Your task to perform on an android device: delete location history Image 0: 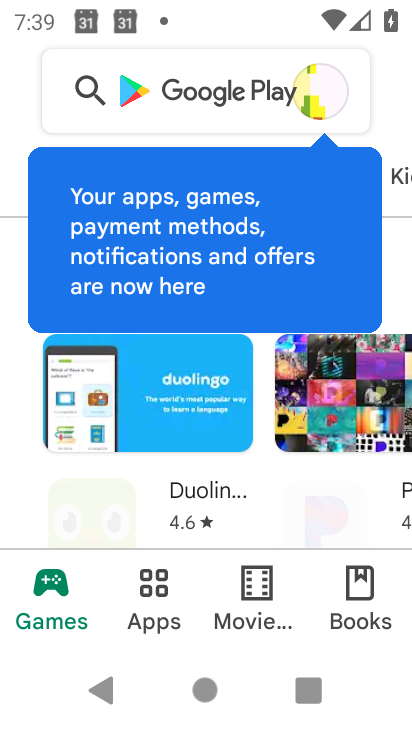
Step 0: press home button
Your task to perform on an android device: delete location history Image 1: 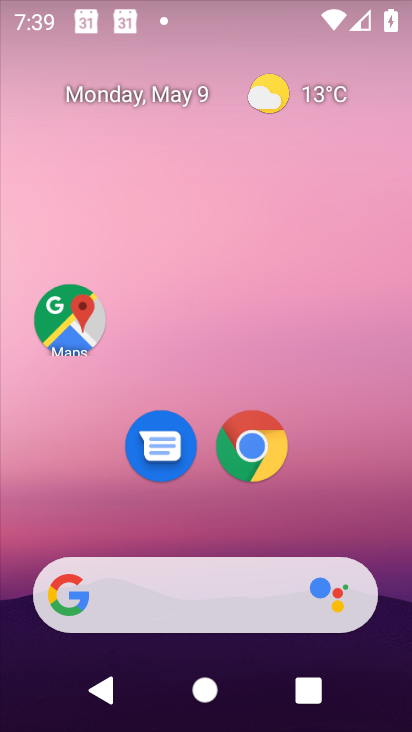
Step 1: drag from (317, 498) to (322, 48)
Your task to perform on an android device: delete location history Image 2: 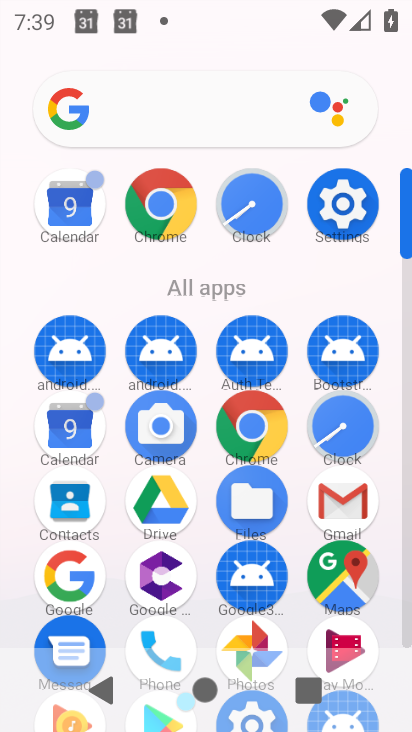
Step 2: click (337, 228)
Your task to perform on an android device: delete location history Image 3: 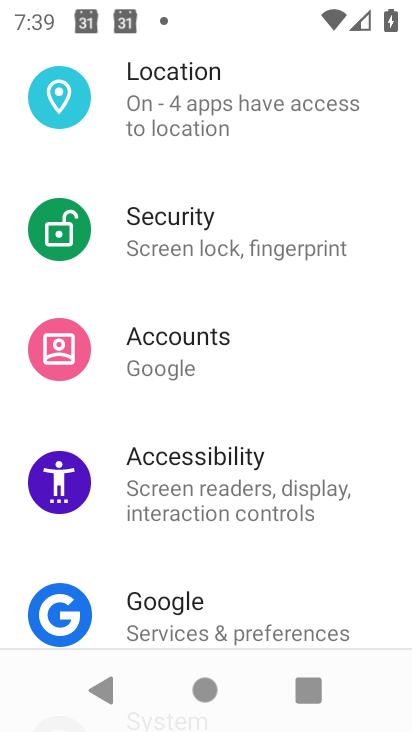
Step 3: click (280, 120)
Your task to perform on an android device: delete location history Image 4: 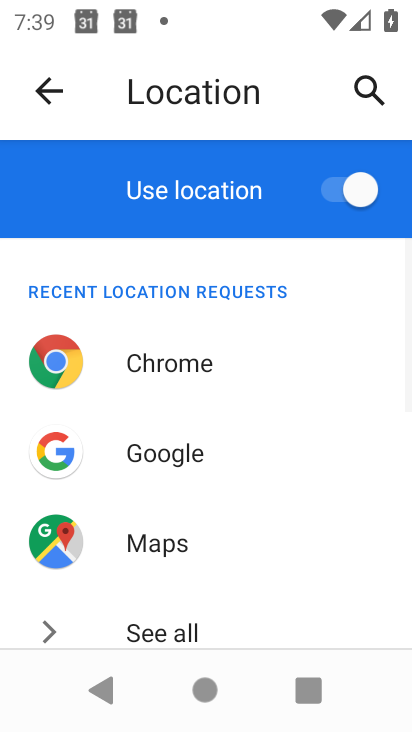
Step 4: drag from (176, 527) to (159, 263)
Your task to perform on an android device: delete location history Image 5: 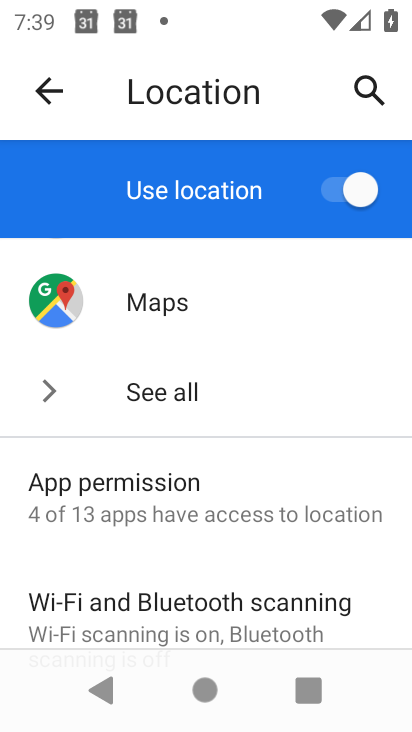
Step 5: drag from (303, 561) to (300, 204)
Your task to perform on an android device: delete location history Image 6: 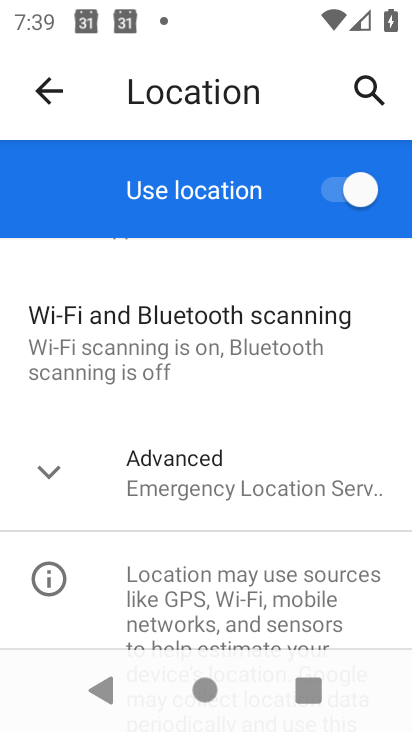
Step 6: click (39, 475)
Your task to perform on an android device: delete location history Image 7: 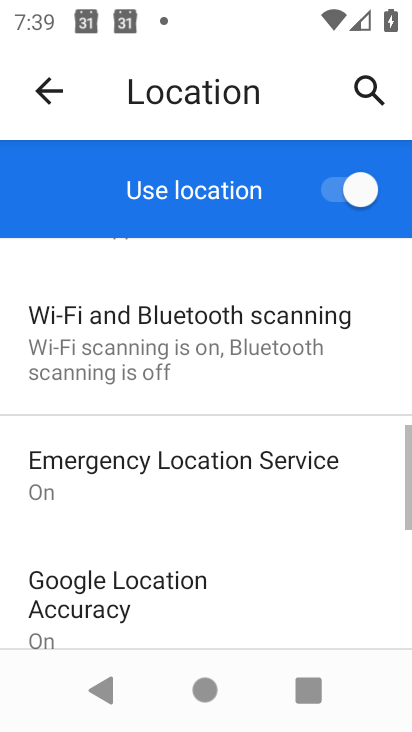
Step 7: drag from (135, 570) to (205, 207)
Your task to perform on an android device: delete location history Image 8: 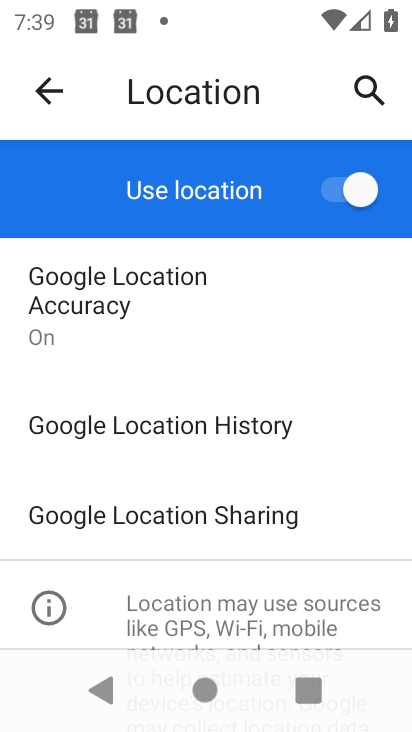
Step 8: click (221, 428)
Your task to perform on an android device: delete location history Image 9: 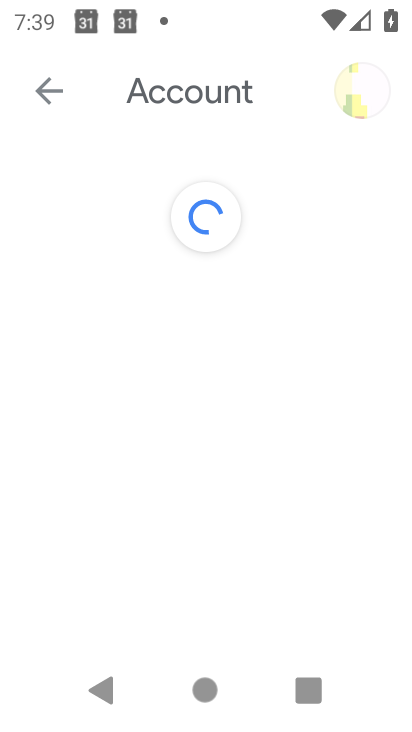
Step 9: drag from (221, 426) to (223, 194)
Your task to perform on an android device: delete location history Image 10: 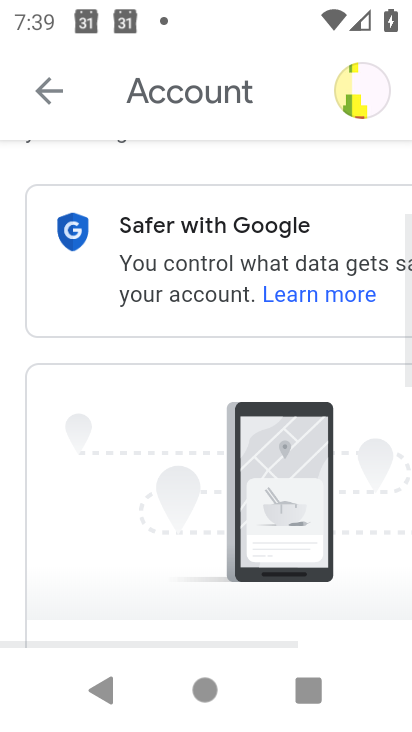
Step 10: drag from (251, 483) to (270, 124)
Your task to perform on an android device: delete location history Image 11: 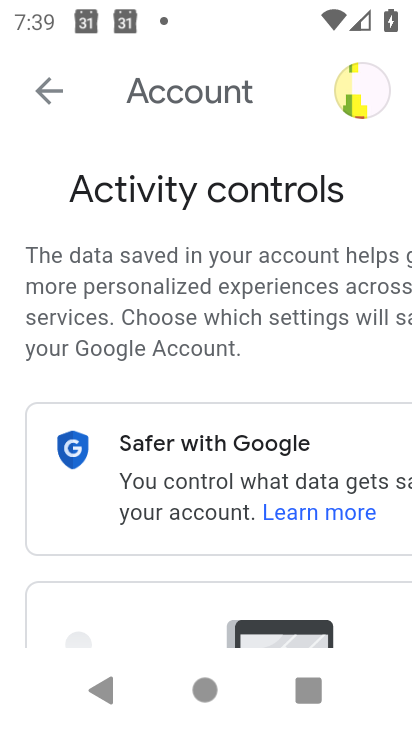
Step 11: drag from (312, 401) to (124, 346)
Your task to perform on an android device: delete location history Image 12: 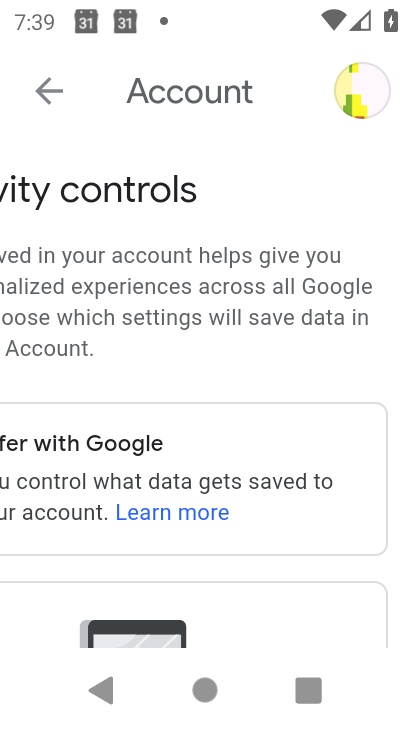
Step 12: drag from (282, 513) to (265, 250)
Your task to perform on an android device: delete location history Image 13: 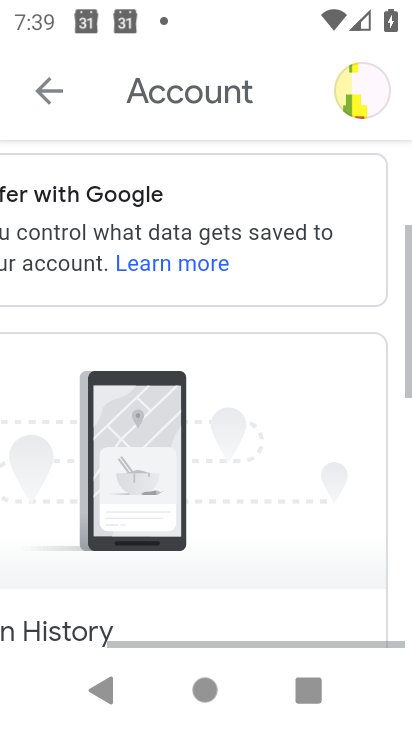
Step 13: drag from (325, 535) to (265, 167)
Your task to perform on an android device: delete location history Image 14: 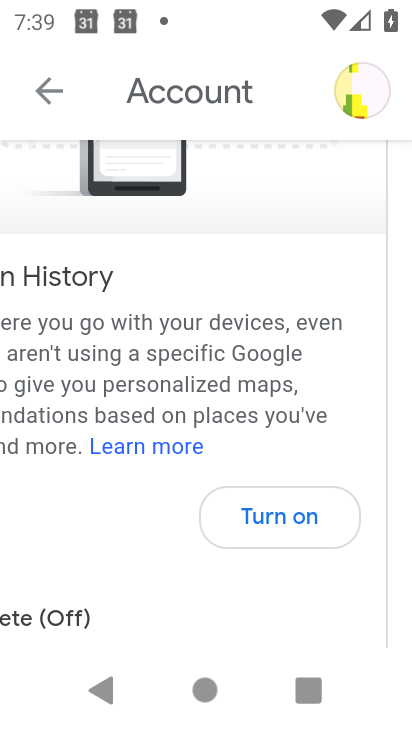
Step 14: drag from (115, 398) to (323, 423)
Your task to perform on an android device: delete location history Image 15: 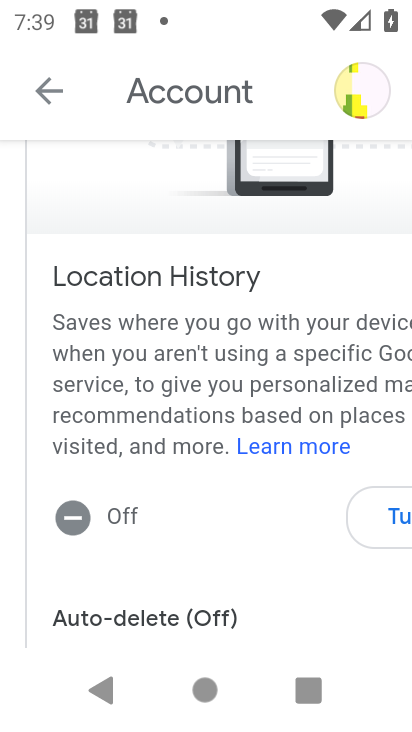
Step 15: drag from (224, 549) to (223, 209)
Your task to perform on an android device: delete location history Image 16: 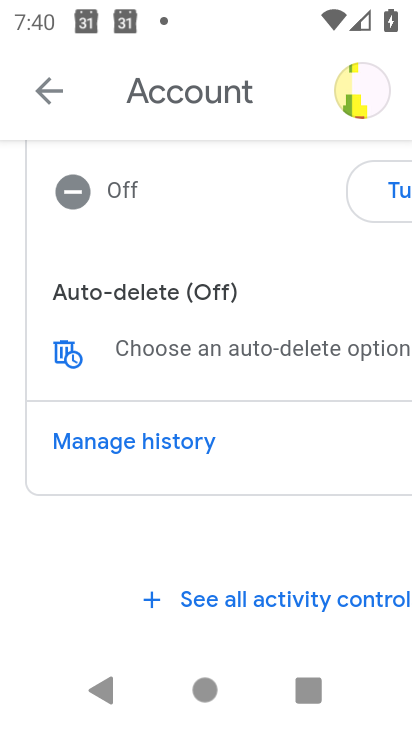
Step 16: drag from (326, 353) to (116, 344)
Your task to perform on an android device: delete location history Image 17: 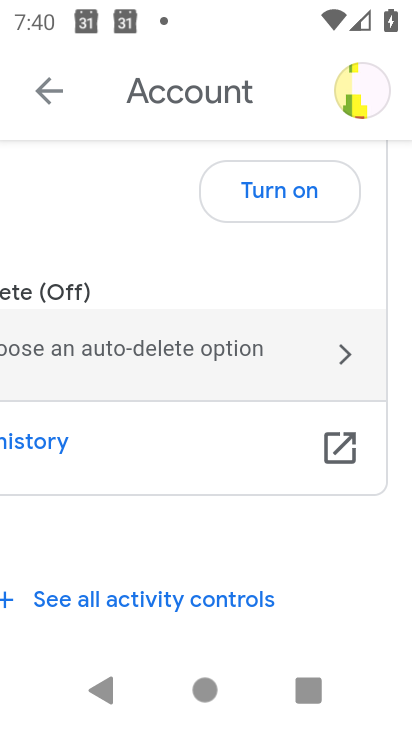
Step 17: click (215, 340)
Your task to perform on an android device: delete location history Image 18: 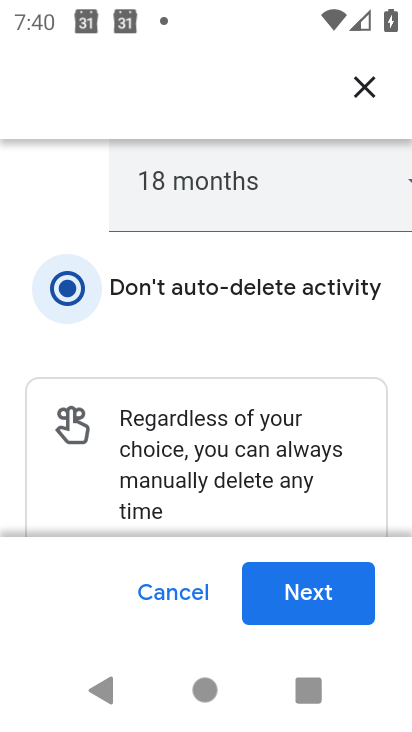
Step 18: click (269, 598)
Your task to perform on an android device: delete location history Image 19: 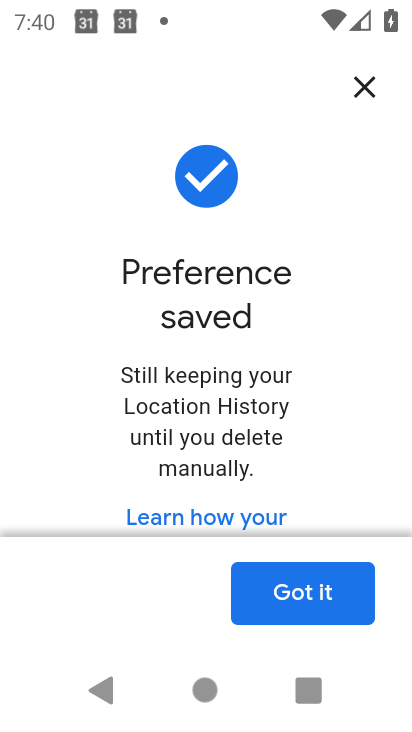
Step 19: click (271, 591)
Your task to perform on an android device: delete location history Image 20: 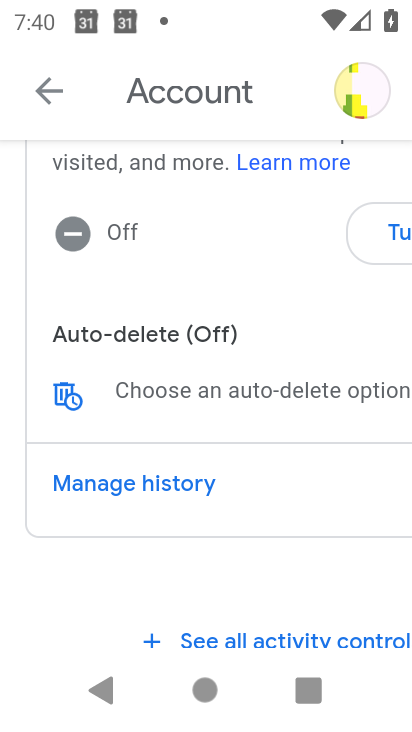
Step 20: task complete